Your task to perform on an android device: make emails show in primary in the gmail app Image 0: 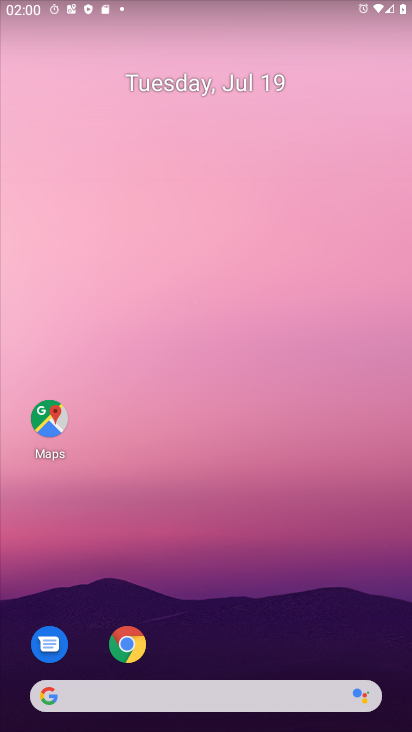
Step 0: drag from (231, 728) to (236, 156)
Your task to perform on an android device: make emails show in primary in the gmail app Image 1: 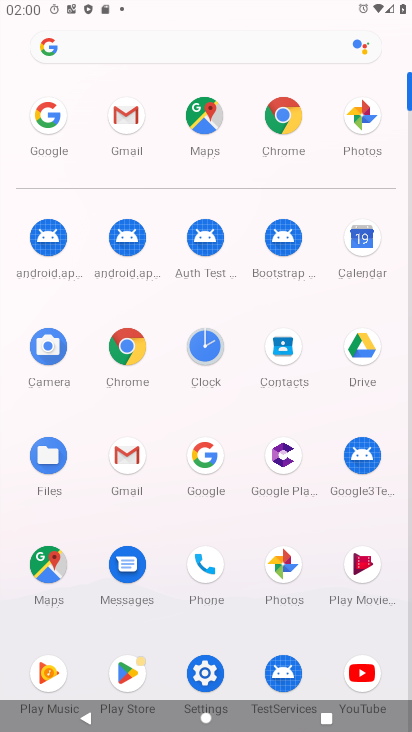
Step 1: click (121, 456)
Your task to perform on an android device: make emails show in primary in the gmail app Image 2: 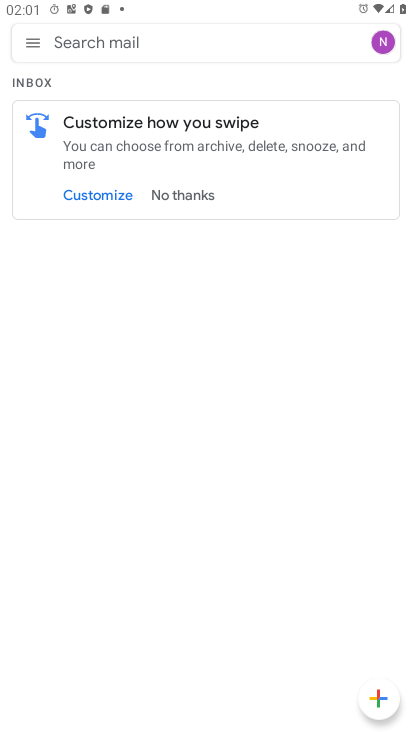
Step 2: click (27, 39)
Your task to perform on an android device: make emails show in primary in the gmail app Image 3: 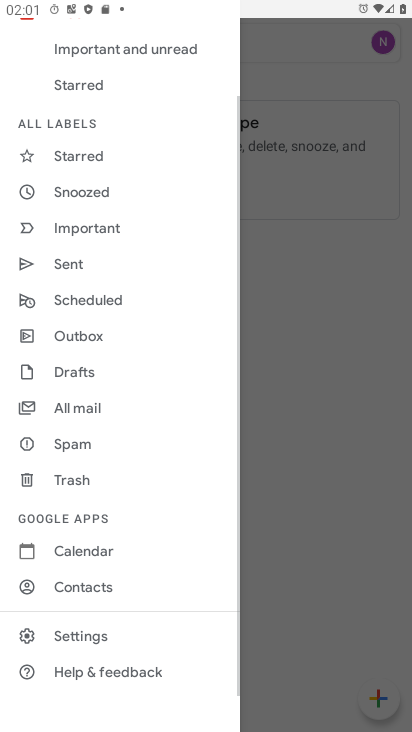
Step 3: click (84, 633)
Your task to perform on an android device: make emails show in primary in the gmail app Image 4: 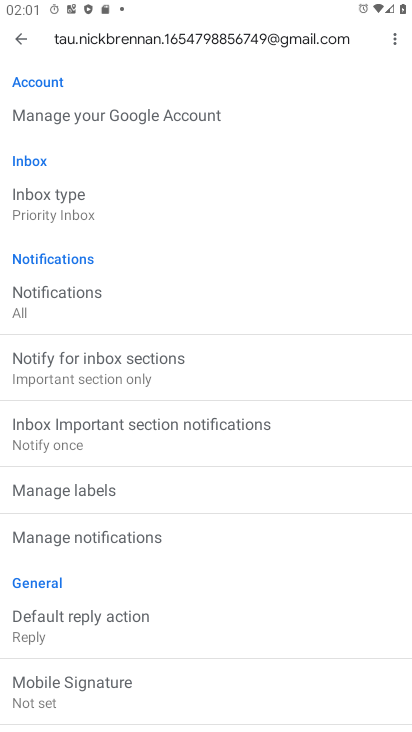
Step 4: click (71, 214)
Your task to perform on an android device: make emails show in primary in the gmail app Image 5: 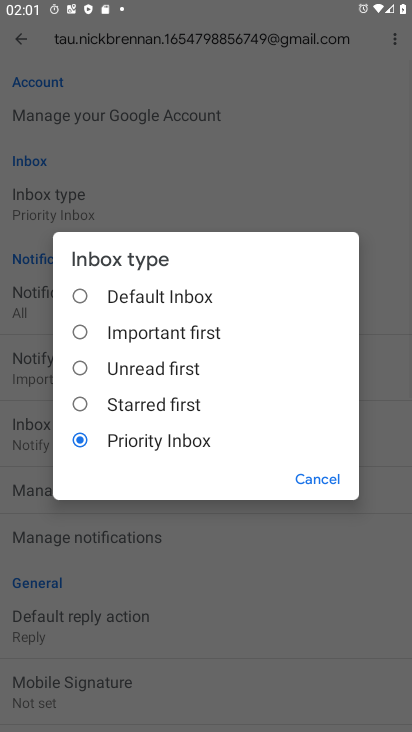
Step 5: click (75, 290)
Your task to perform on an android device: make emails show in primary in the gmail app Image 6: 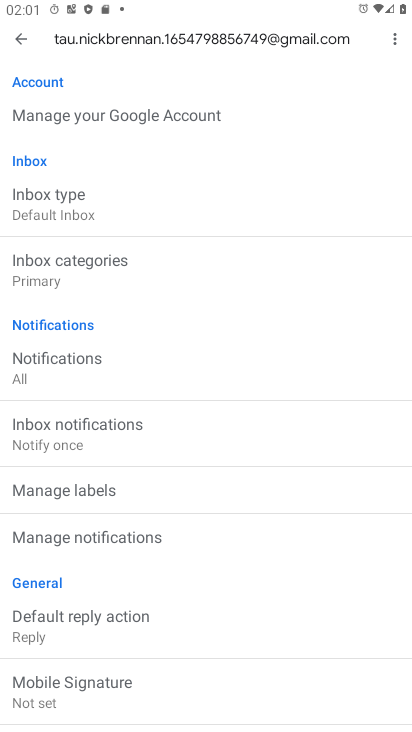
Step 6: task complete